Your task to perform on an android device: Open Google Image 0: 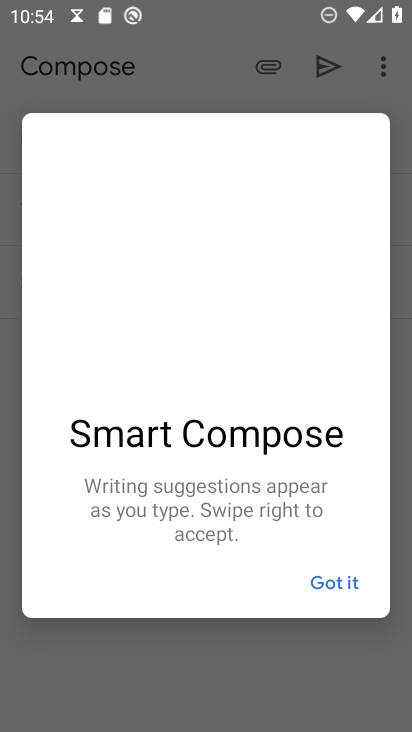
Step 0: press home button
Your task to perform on an android device: Open Google Image 1: 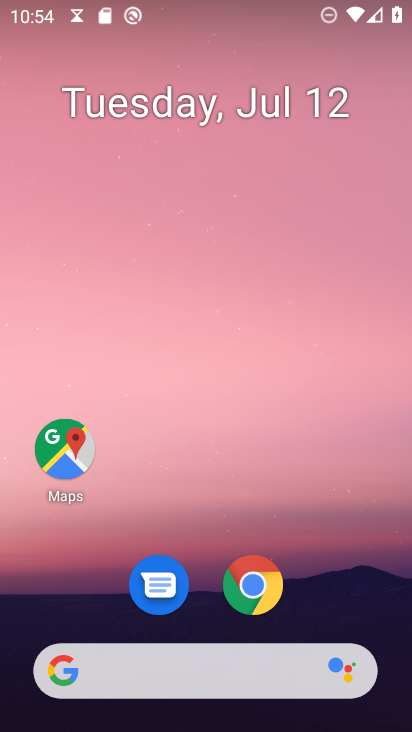
Step 1: drag from (193, 670) to (215, 32)
Your task to perform on an android device: Open Google Image 2: 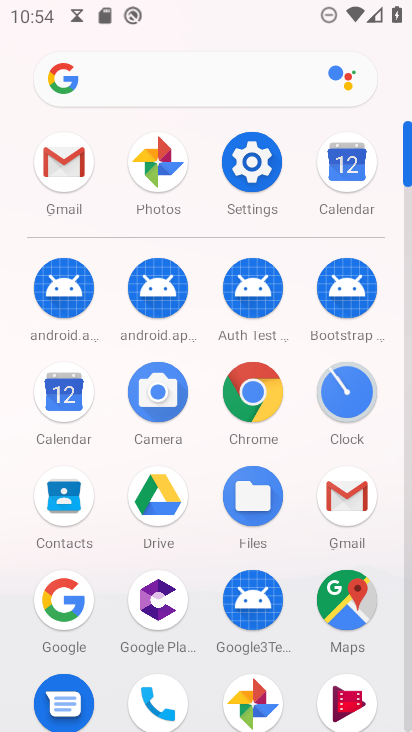
Step 2: drag from (199, 603) to (242, 173)
Your task to perform on an android device: Open Google Image 3: 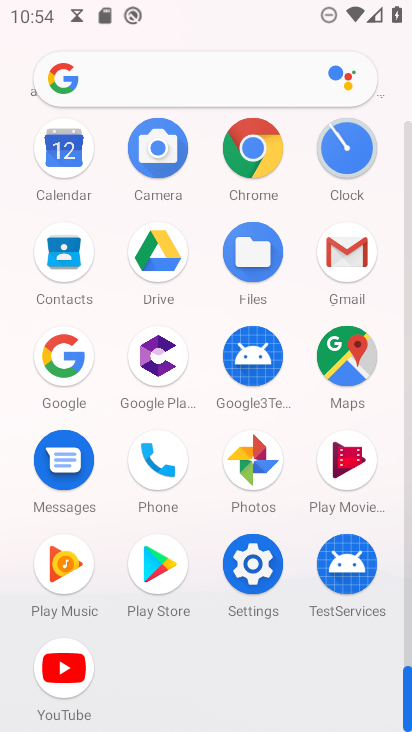
Step 3: drag from (208, 225) to (187, 680)
Your task to perform on an android device: Open Google Image 4: 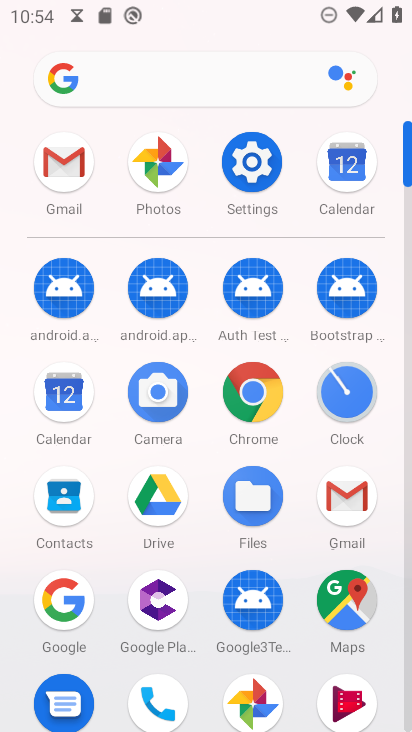
Step 4: click (69, 615)
Your task to perform on an android device: Open Google Image 5: 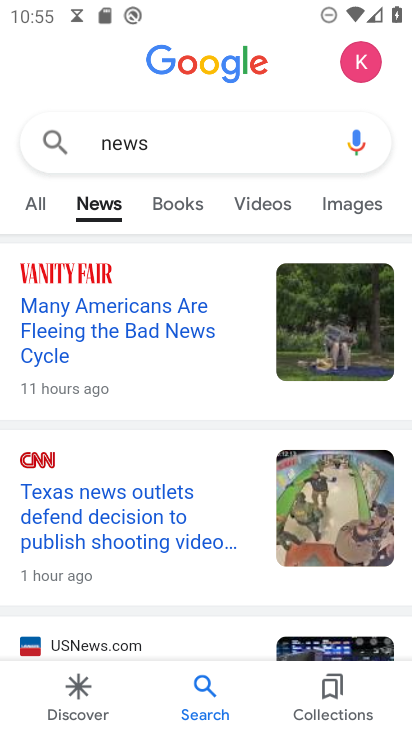
Step 5: task complete